Your task to perform on an android device: Go to Yahoo.com Image 0: 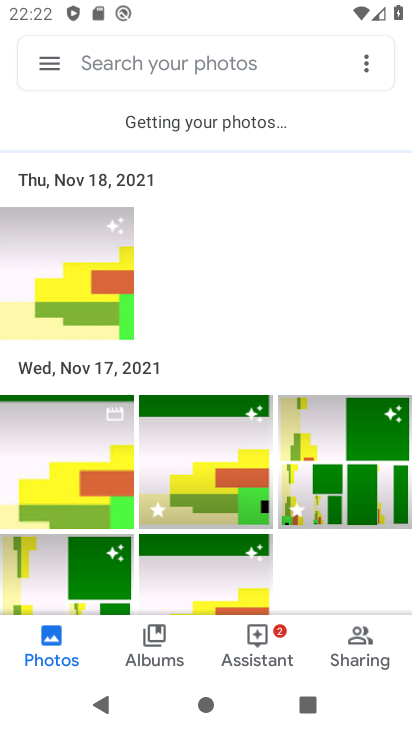
Step 0: press home button
Your task to perform on an android device: Go to Yahoo.com Image 1: 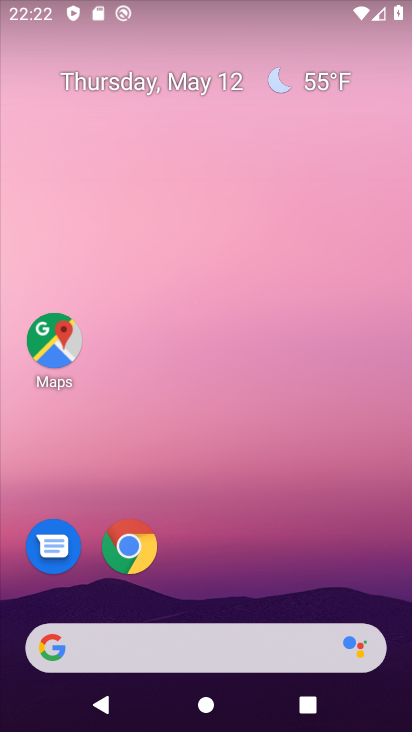
Step 1: click (126, 545)
Your task to perform on an android device: Go to Yahoo.com Image 2: 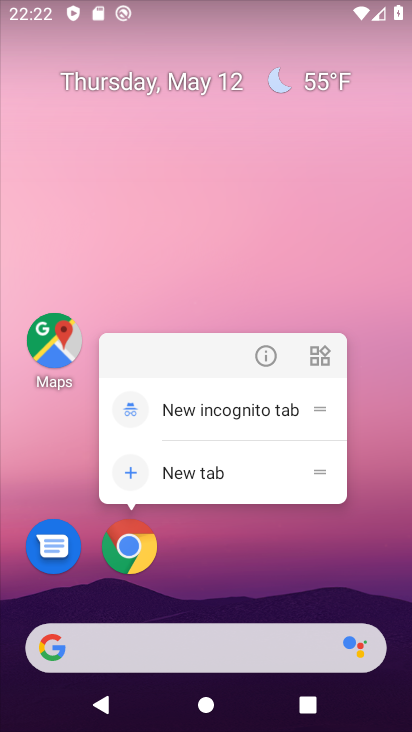
Step 2: click (125, 547)
Your task to perform on an android device: Go to Yahoo.com Image 3: 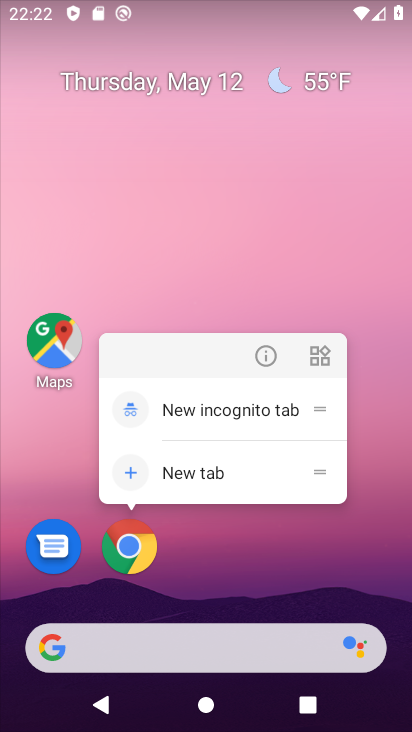
Step 3: click (125, 545)
Your task to perform on an android device: Go to Yahoo.com Image 4: 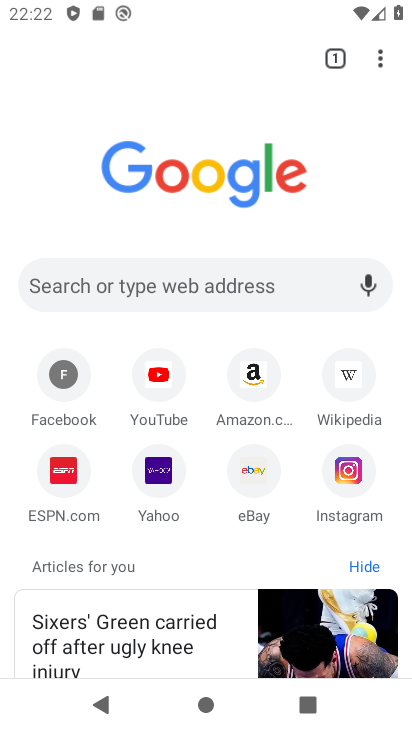
Step 4: click (86, 292)
Your task to perform on an android device: Go to Yahoo.com Image 5: 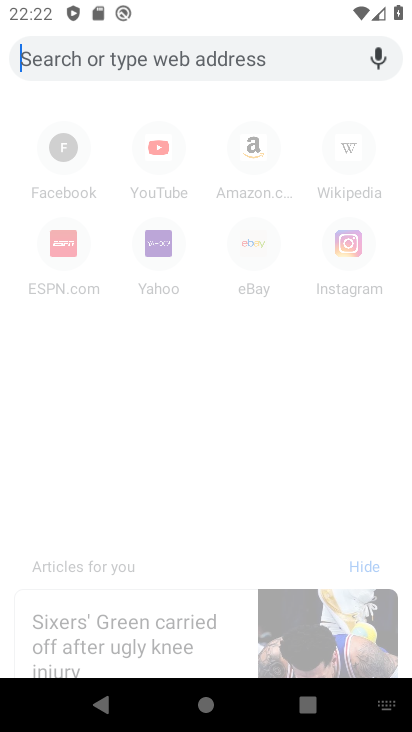
Step 5: type "Yahoo.com"
Your task to perform on an android device: Go to Yahoo.com Image 6: 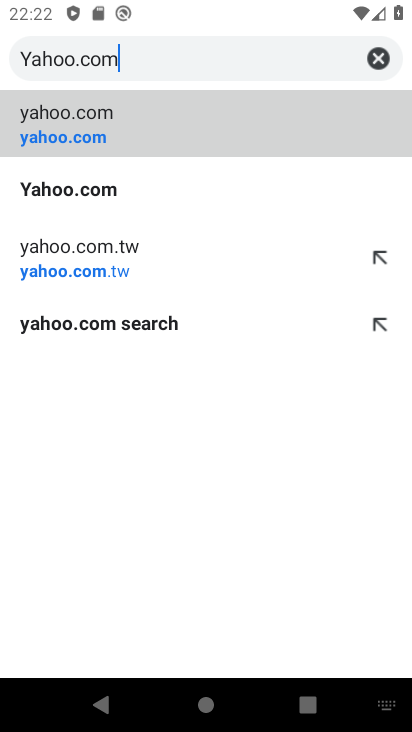
Step 6: click (148, 125)
Your task to perform on an android device: Go to Yahoo.com Image 7: 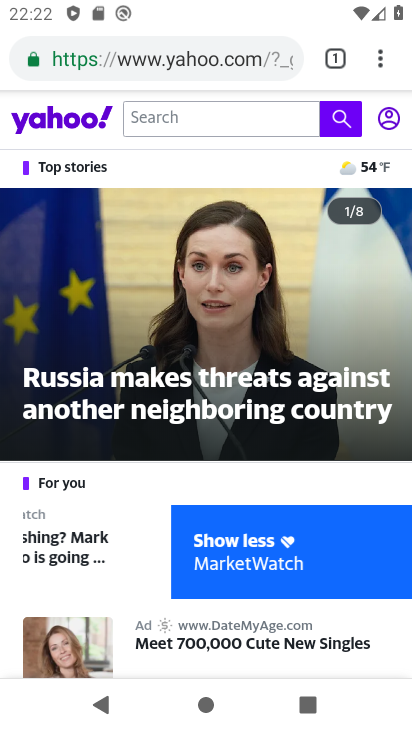
Step 7: task complete